Your task to perform on an android device: Show me the alarms in the clock app Image 0: 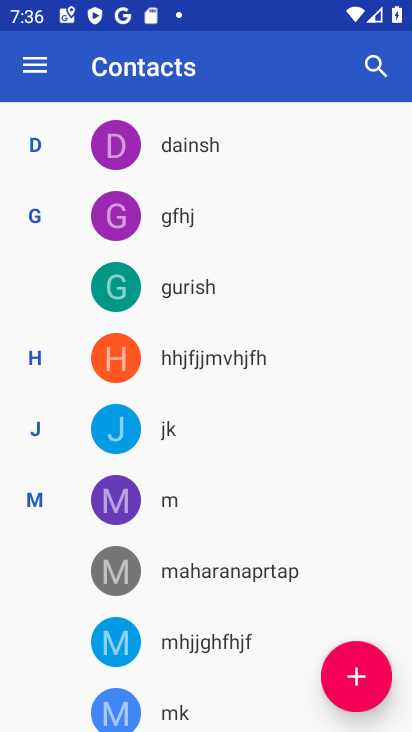
Step 0: press home button
Your task to perform on an android device: Show me the alarms in the clock app Image 1: 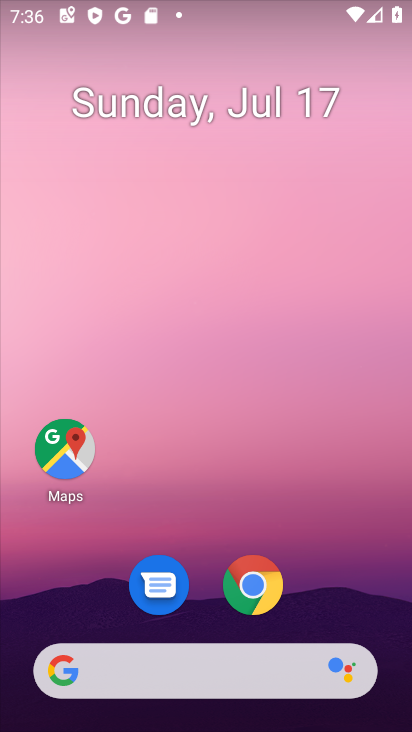
Step 1: drag from (320, 557) to (268, 51)
Your task to perform on an android device: Show me the alarms in the clock app Image 2: 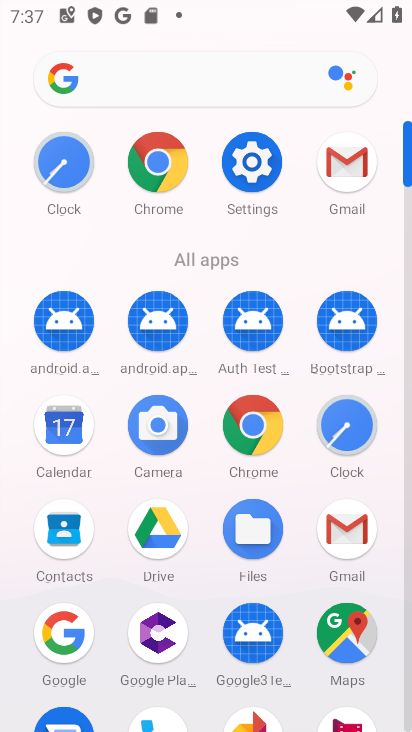
Step 2: click (65, 169)
Your task to perform on an android device: Show me the alarms in the clock app Image 3: 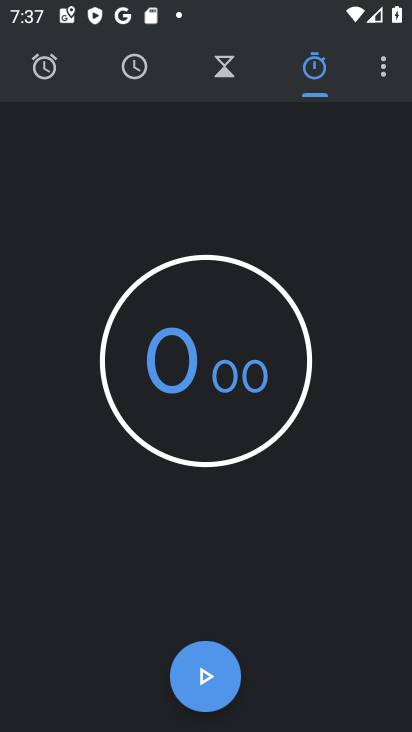
Step 3: click (46, 67)
Your task to perform on an android device: Show me the alarms in the clock app Image 4: 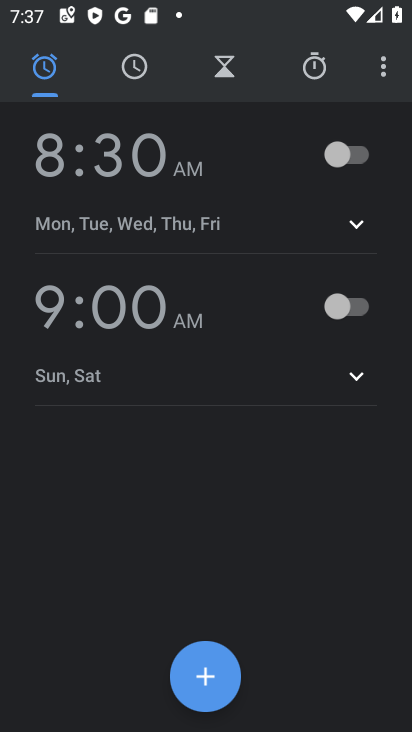
Step 4: task complete